Your task to perform on an android device: change the clock display to analog Image 0: 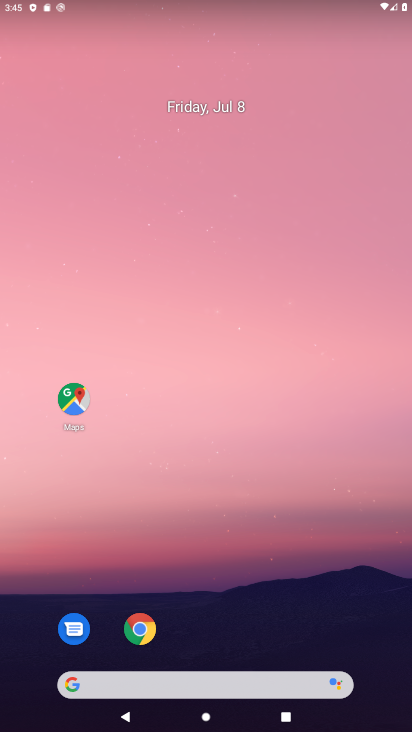
Step 0: drag from (209, 669) to (176, 67)
Your task to perform on an android device: change the clock display to analog Image 1: 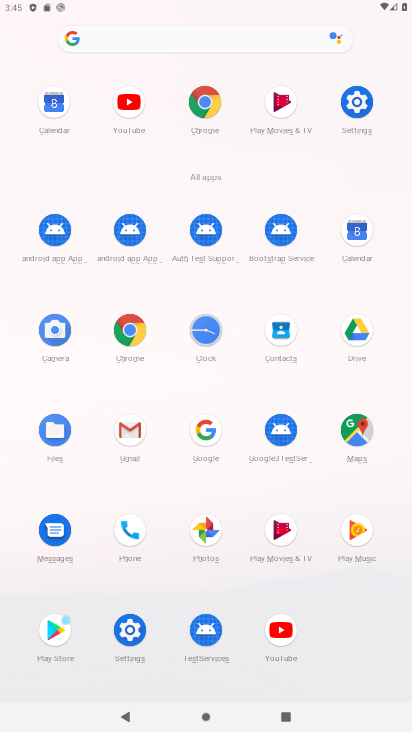
Step 1: click (213, 328)
Your task to perform on an android device: change the clock display to analog Image 2: 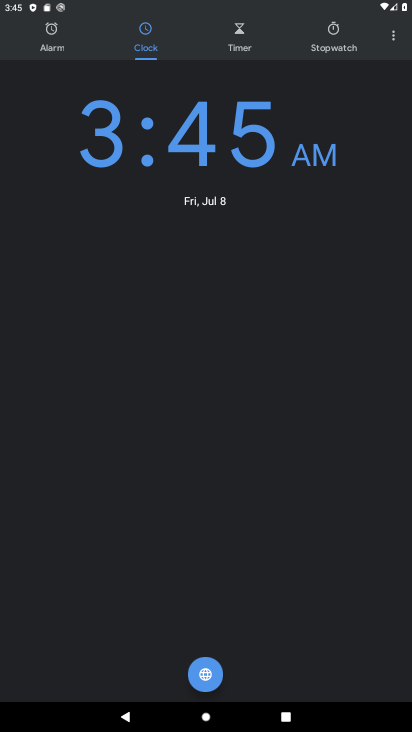
Step 2: click (390, 35)
Your task to perform on an android device: change the clock display to analog Image 3: 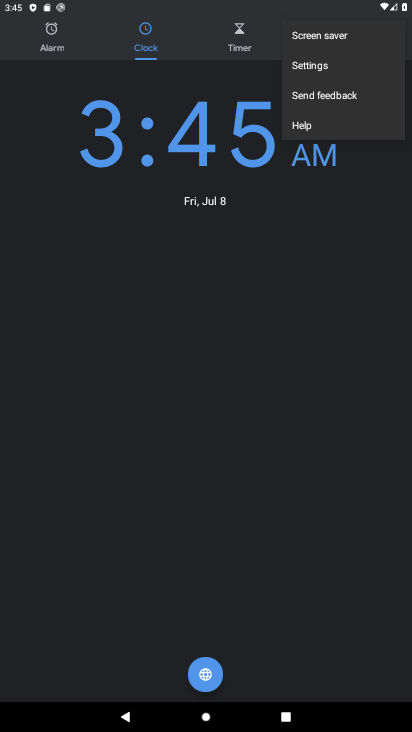
Step 3: click (306, 76)
Your task to perform on an android device: change the clock display to analog Image 4: 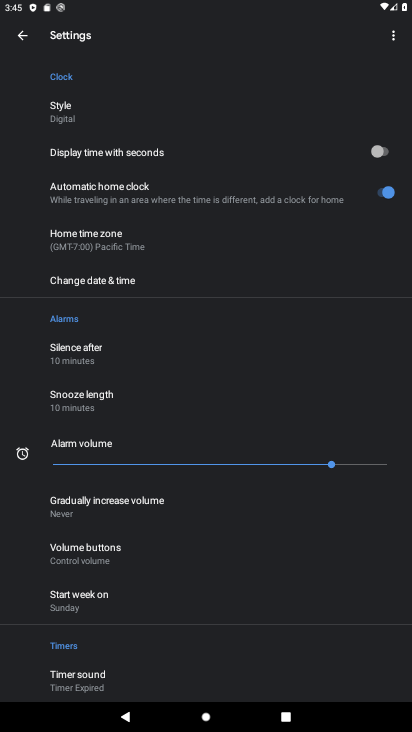
Step 4: click (67, 123)
Your task to perform on an android device: change the clock display to analog Image 5: 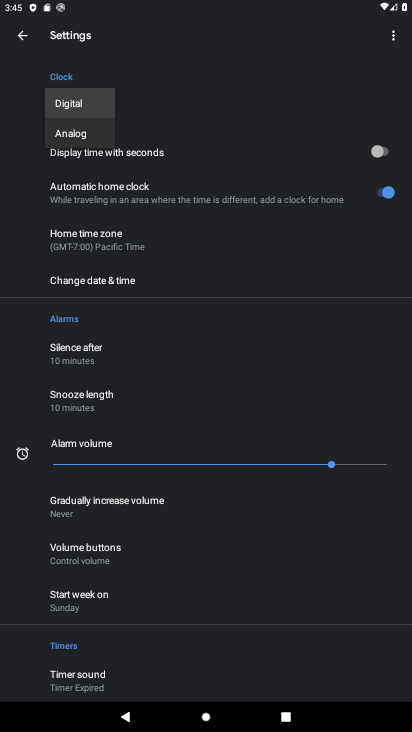
Step 5: click (88, 129)
Your task to perform on an android device: change the clock display to analog Image 6: 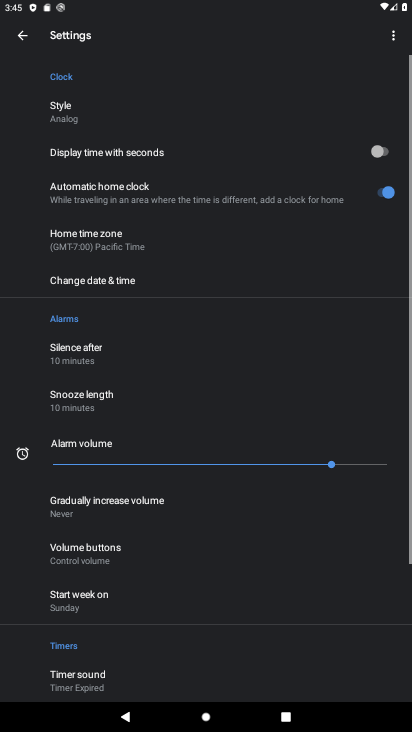
Step 6: task complete